Your task to perform on an android device: toggle javascript in the chrome app Image 0: 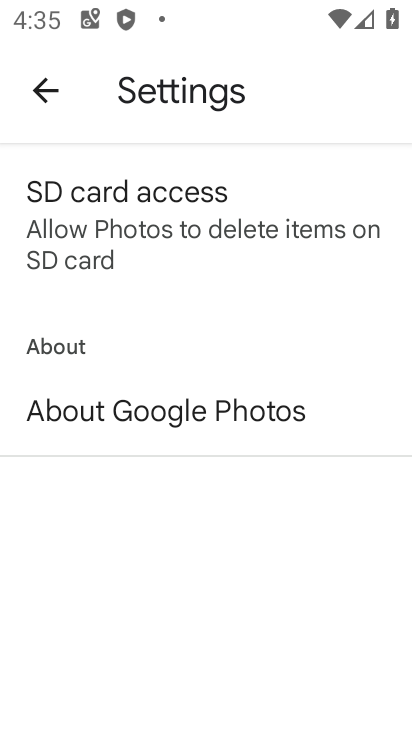
Step 0: press home button
Your task to perform on an android device: toggle javascript in the chrome app Image 1: 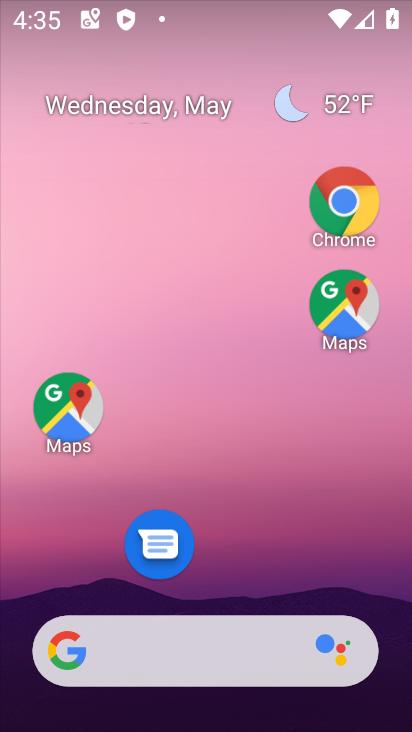
Step 1: click (339, 243)
Your task to perform on an android device: toggle javascript in the chrome app Image 2: 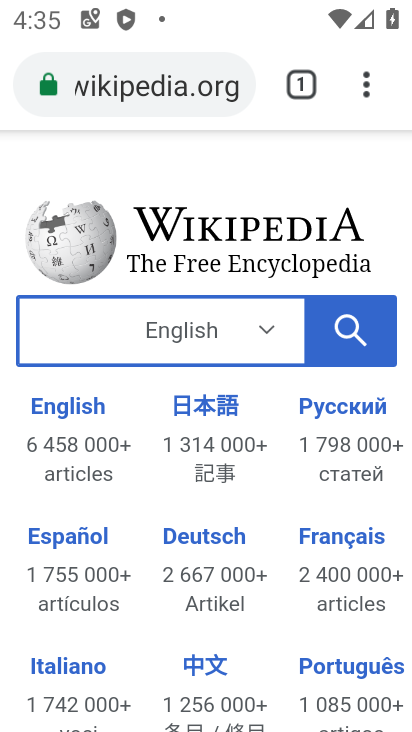
Step 2: click (364, 86)
Your task to perform on an android device: toggle javascript in the chrome app Image 3: 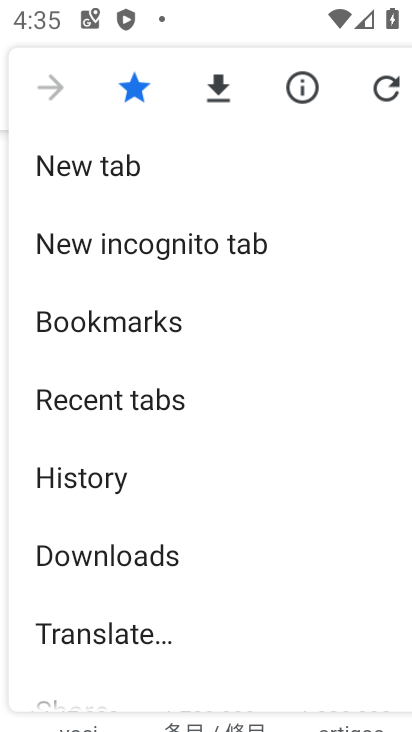
Step 3: drag from (170, 599) to (182, 314)
Your task to perform on an android device: toggle javascript in the chrome app Image 4: 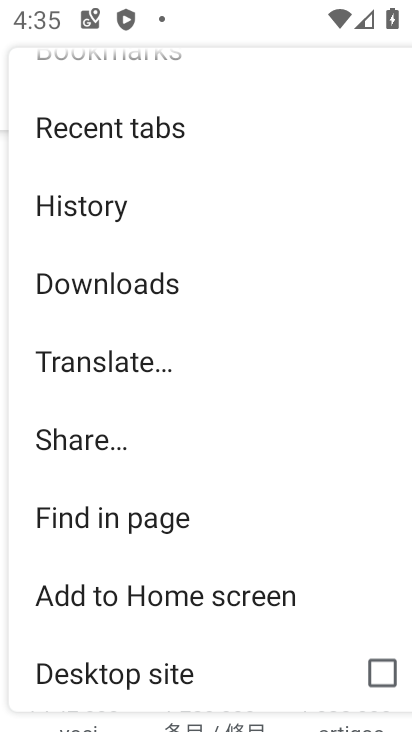
Step 4: drag from (179, 661) to (194, 362)
Your task to perform on an android device: toggle javascript in the chrome app Image 5: 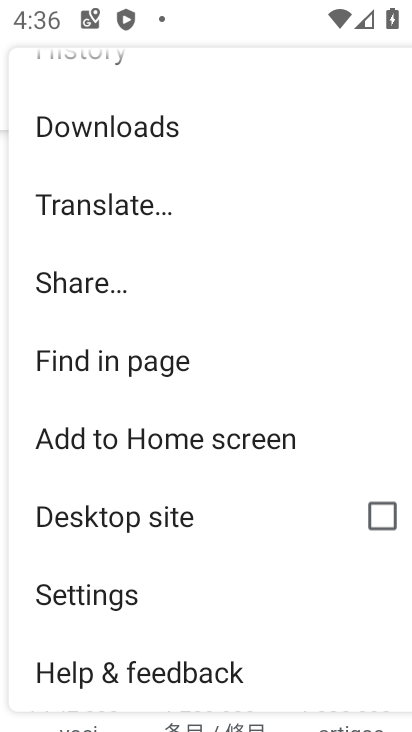
Step 5: click (138, 592)
Your task to perform on an android device: toggle javascript in the chrome app Image 6: 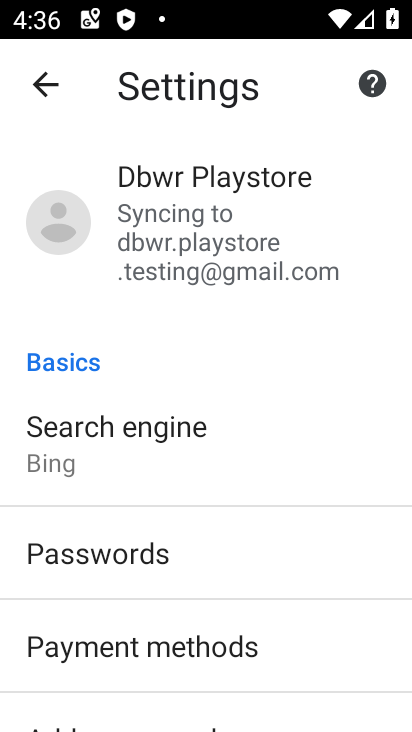
Step 6: drag from (218, 610) to (184, 228)
Your task to perform on an android device: toggle javascript in the chrome app Image 7: 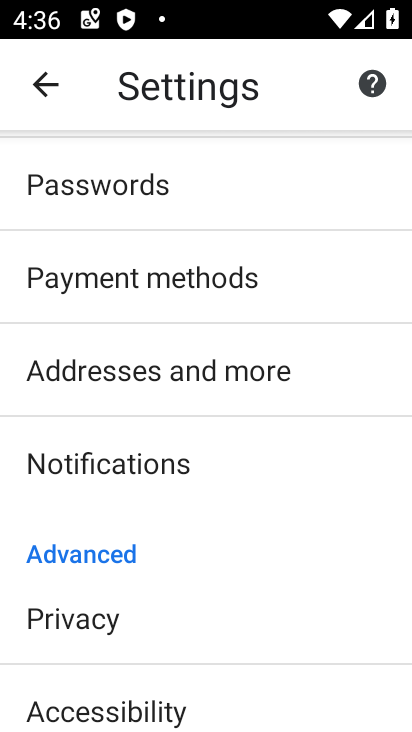
Step 7: drag from (177, 383) to (197, 252)
Your task to perform on an android device: toggle javascript in the chrome app Image 8: 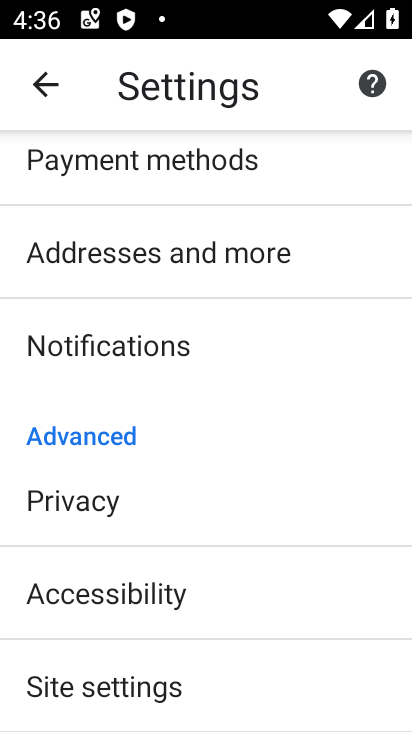
Step 8: click (158, 686)
Your task to perform on an android device: toggle javascript in the chrome app Image 9: 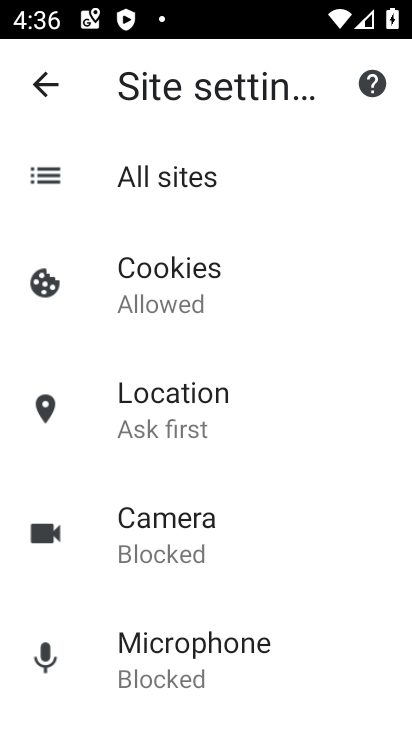
Step 9: drag from (225, 660) to (256, 282)
Your task to perform on an android device: toggle javascript in the chrome app Image 10: 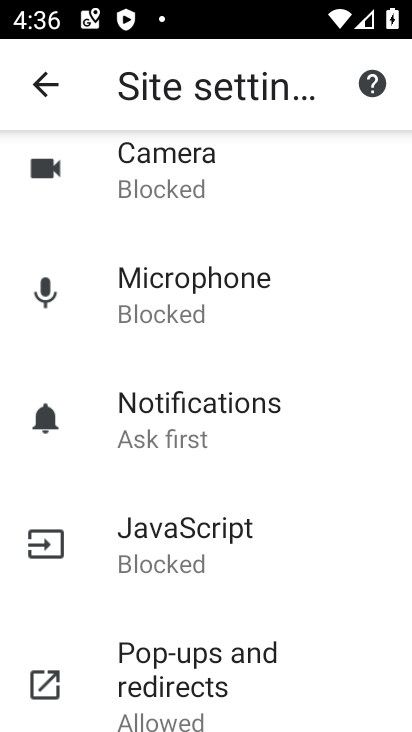
Step 10: click (186, 540)
Your task to perform on an android device: toggle javascript in the chrome app Image 11: 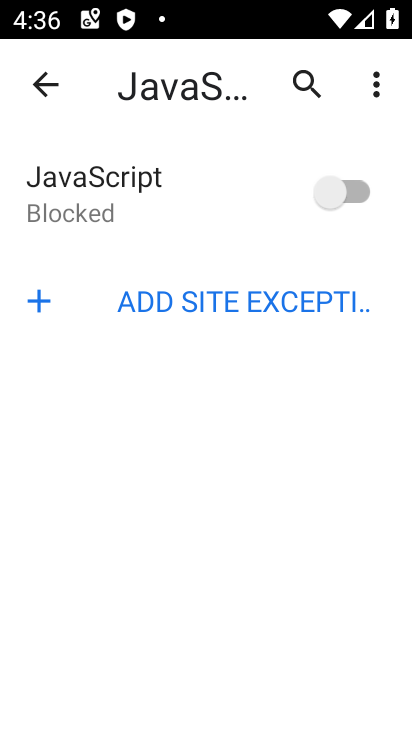
Step 11: click (354, 204)
Your task to perform on an android device: toggle javascript in the chrome app Image 12: 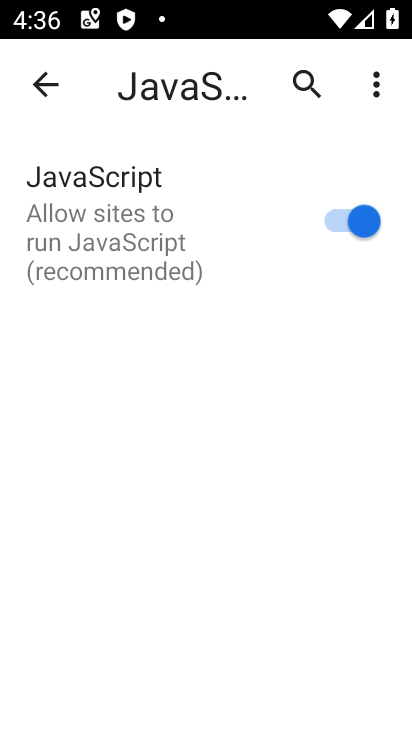
Step 12: task complete